Your task to perform on an android device: change keyboard looks Image 0: 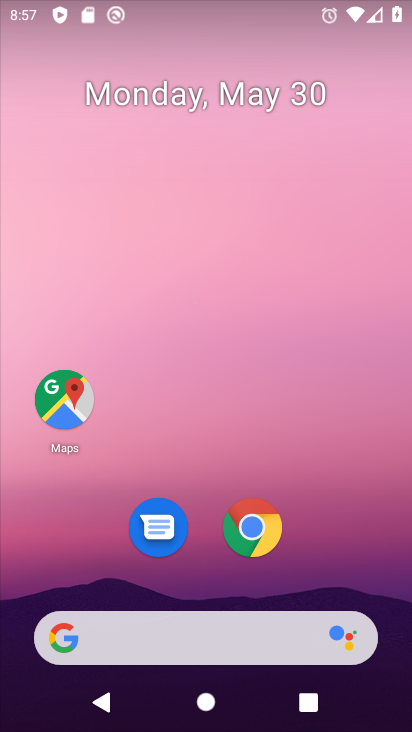
Step 0: drag from (332, 618) to (350, 53)
Your task to perform on an android device: change keyboard looks Image 1: 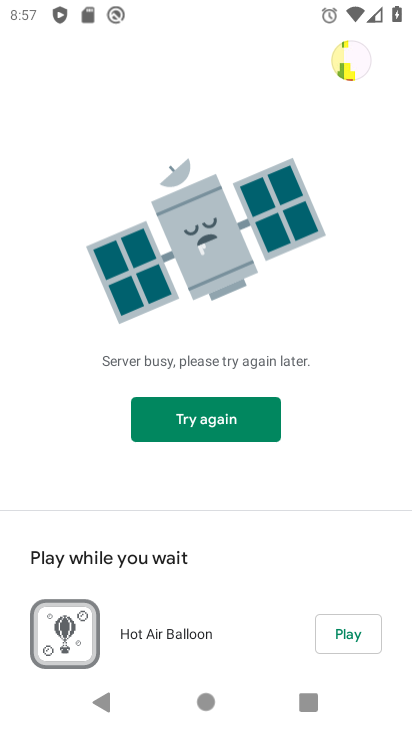
Step 1: press home button
Your task to perform on an android device: change keyboard looks Image 2: 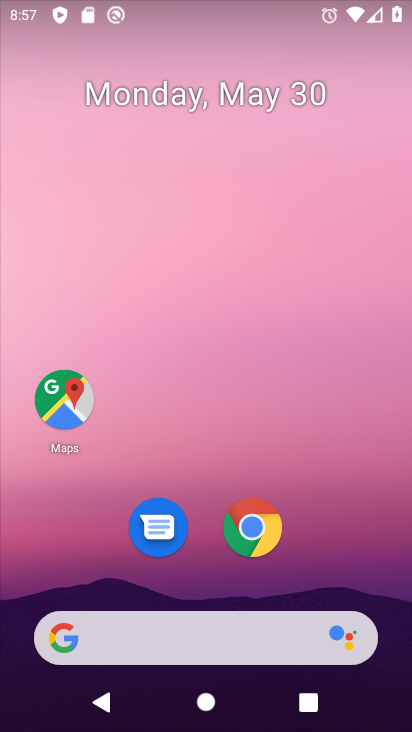
Step 2: drag from (306, 614) to (378, 3)
Your task to perform on an android device: change keyboard looks Image 3: 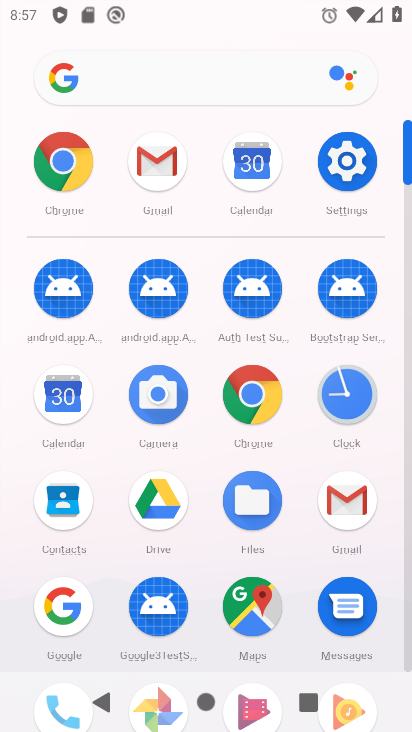
Step 3: click (357, 169)
Your task to perform on an android device: change keyboard looks Image 4: 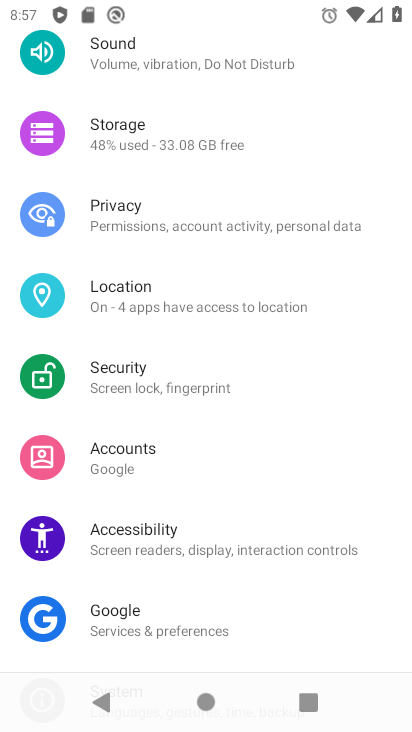
Step 4: drag from (227, 594) to (291, 94)
Your task to perform on an android device: change keyboard looks Image 5: 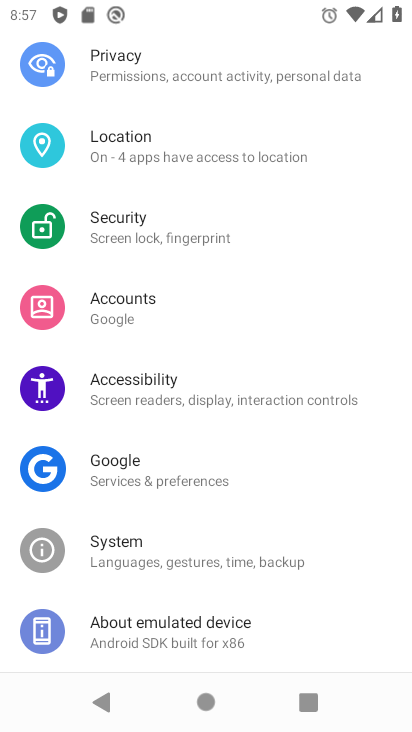
Step 5: click (102, 556)
Your task to perform on an android device: change keyboard looks Image 6: 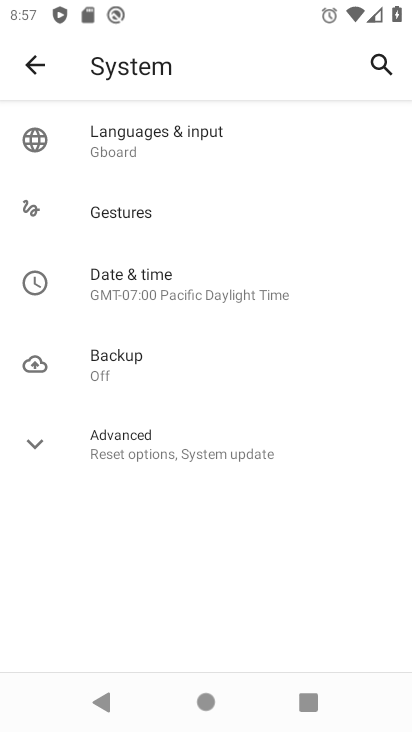
Step 6: click (169, 127)
Your task to perform on an android device: change keyboard looks Image 7: 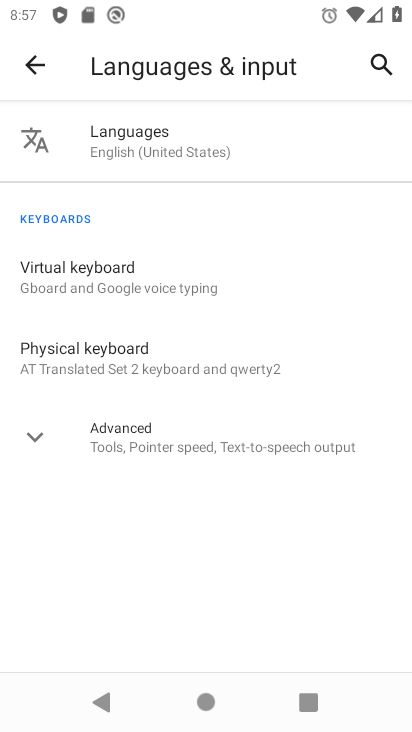
Step 7: click (135, 277)
Your task to perform on an android device: change keyboard looks Image 8: 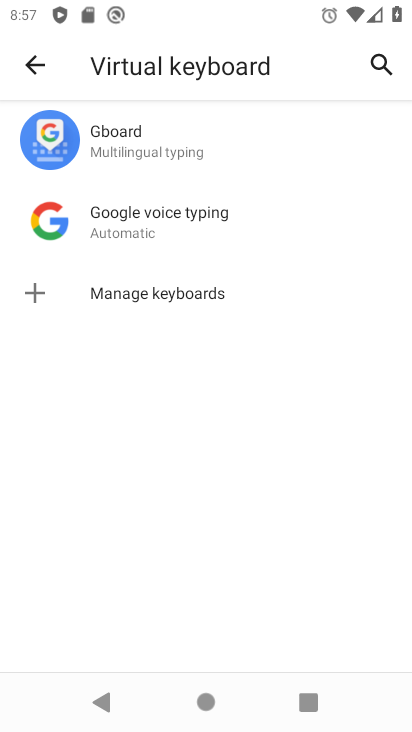
Step 8: click (166, 151)
Your task to perform on an android device: change keyboard looks Image 9: 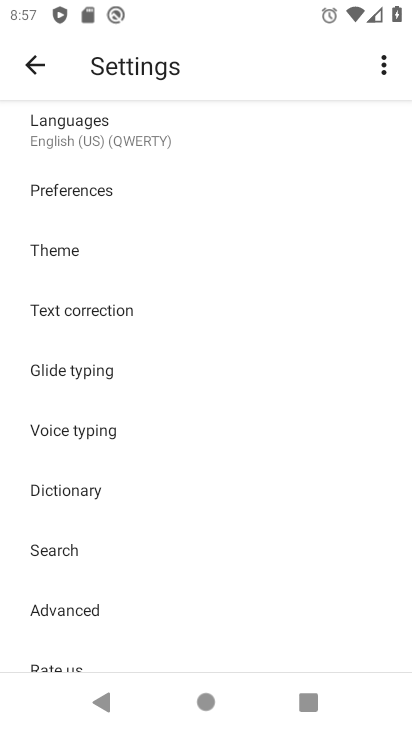
Step 9: click (56, 245)
Your task to perform on an android device: change keyboard looks Image 10: 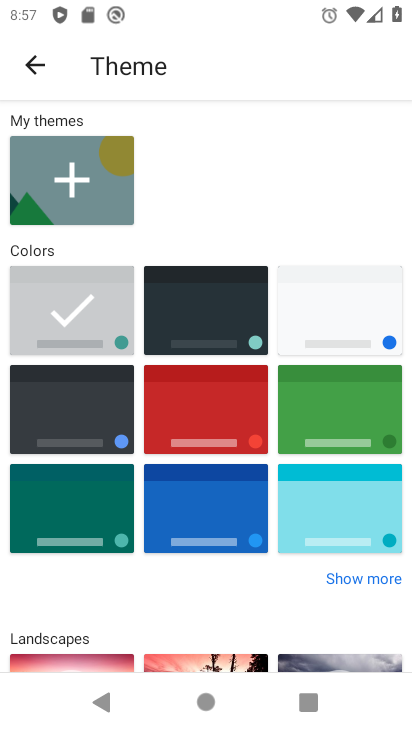
Step 10: click (158, 401)
Your task to perform on an android device: change keyboard looks Image 11: 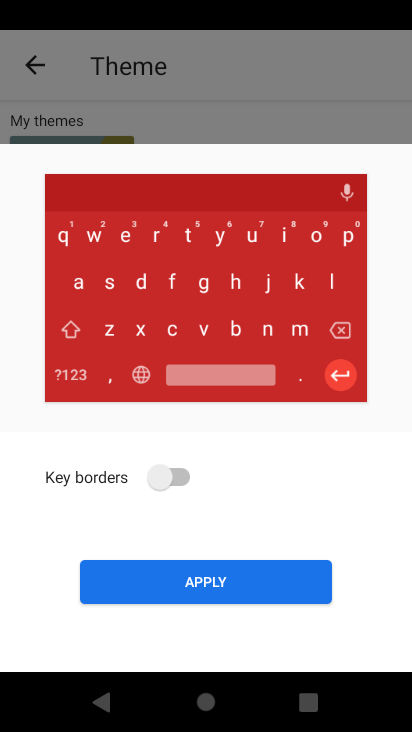
Step 11: click (222, 578)
Your task to perform on an android device: change keyboard looks Image 12: 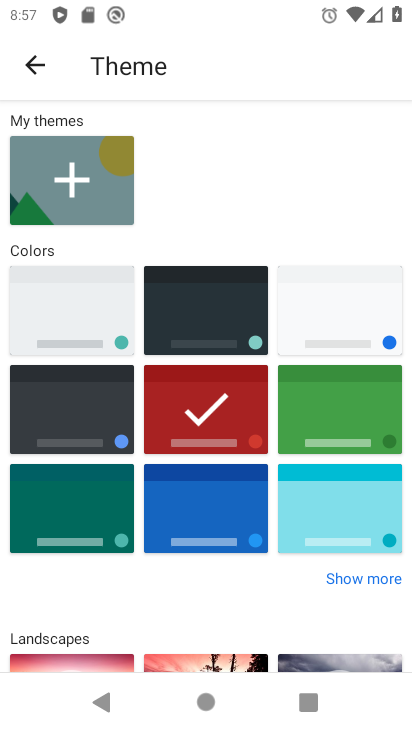
Step 12: task complete